Your task to perform on an android device: turn on the 12-hour format for clock Image 0: 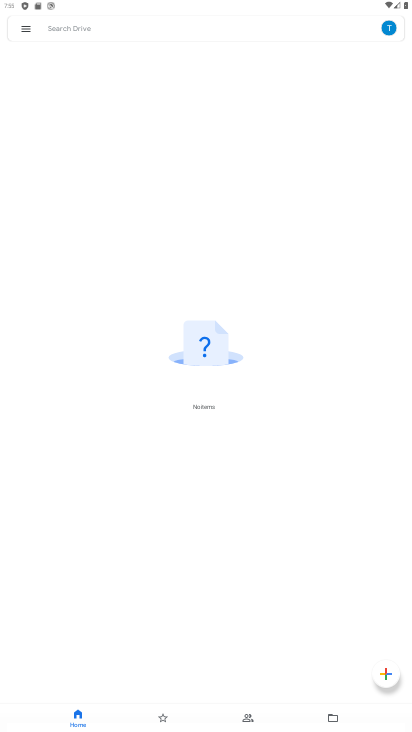
Step 0: press home button
Your task to perform on an android device: turn on the 12-hour format for clock Image 1: 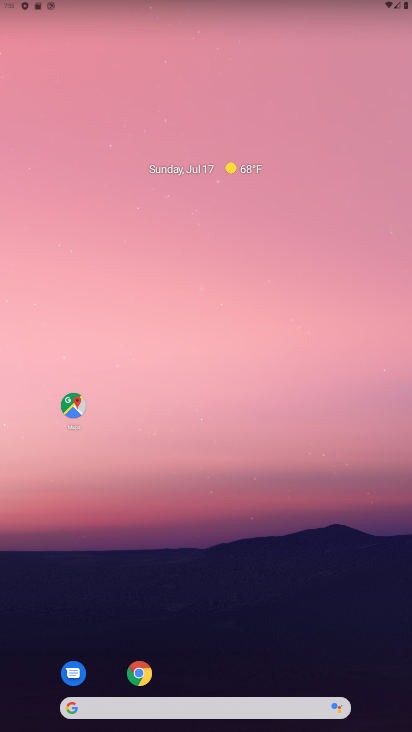
Step 1: drag from (335, 672) to (227, 0)
Your task to perform on an android device: turn on the 12-hour format for clock Image 2: 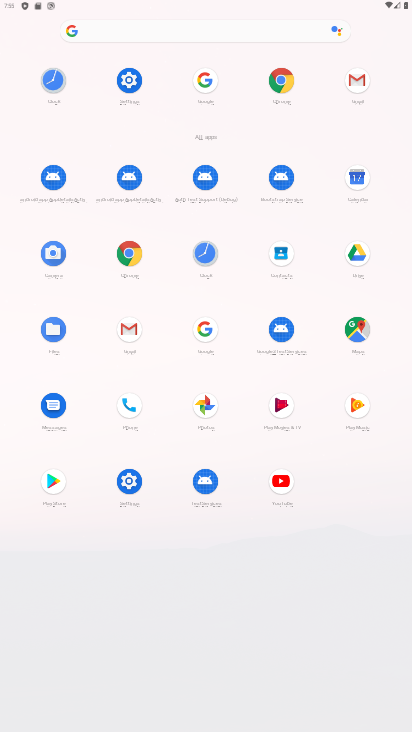
Step 2: drag from (338, 600) to (275, 71)
Your task to perform on an android device: turn on the 12-hour format for clock Image 3: 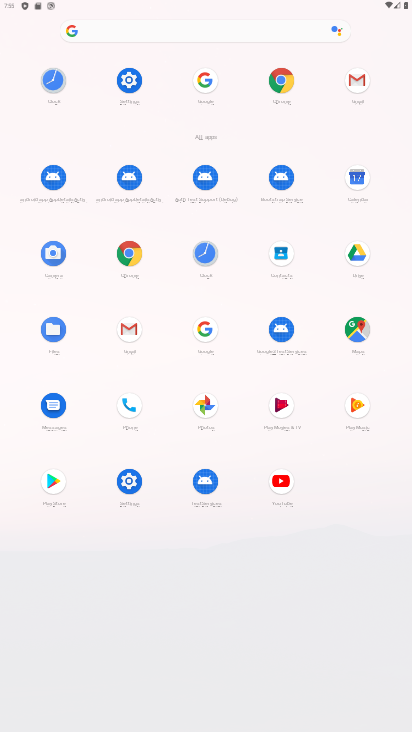
Step 3: click (216, 252)
Your task to perform on an android device: turn on the 12-hour format for clock Image 4: 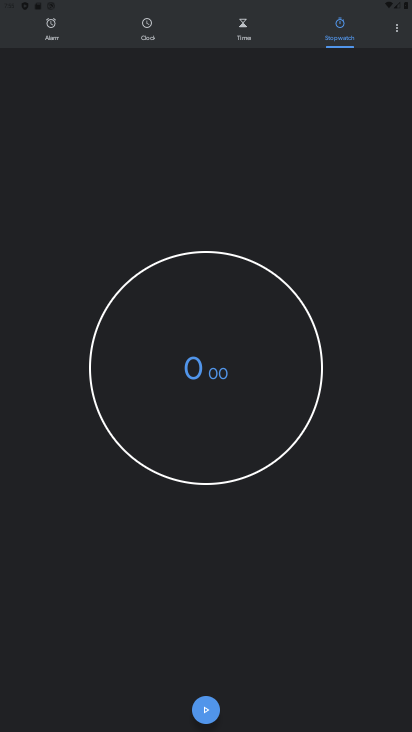
Step 4: click (399, 25)
Your task to perform on an android device: turn on the 12-hour format for clock Image 5: 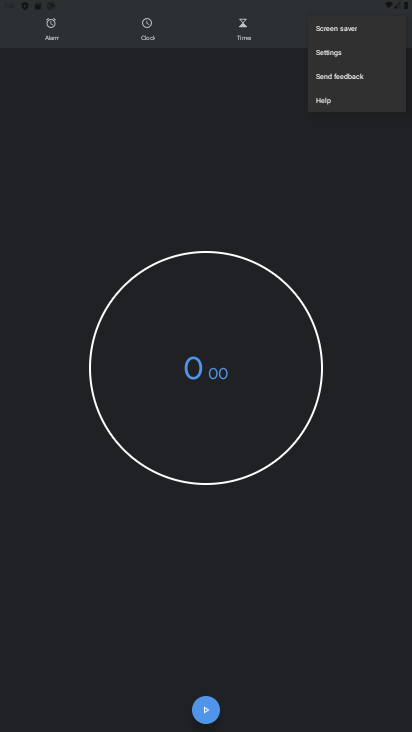
Step 5: click (326, 57)
Your task to perform on an android device: turn on the 12-hour format for clock Image 6: 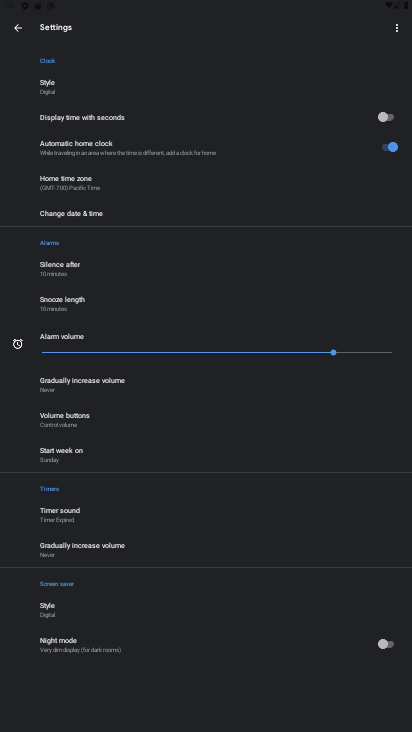
Step 6: click (83, 217)
Your task to perform on an android device: turn on the 12-hour format for clock Image 7: 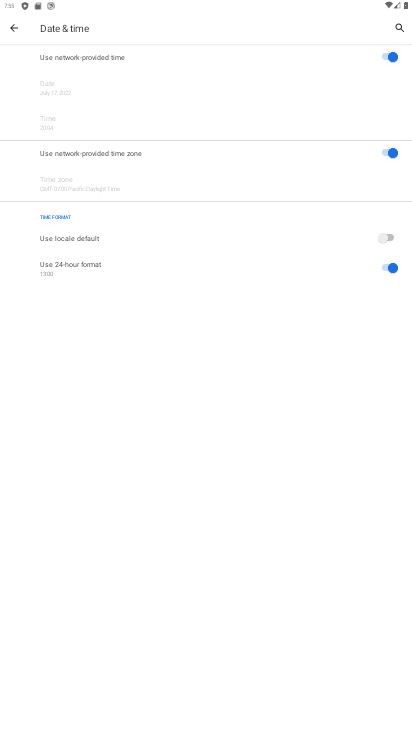
Step 7: task complete